Your task to perform on an android device: turn off priority inbox in the gmail app Image 0: 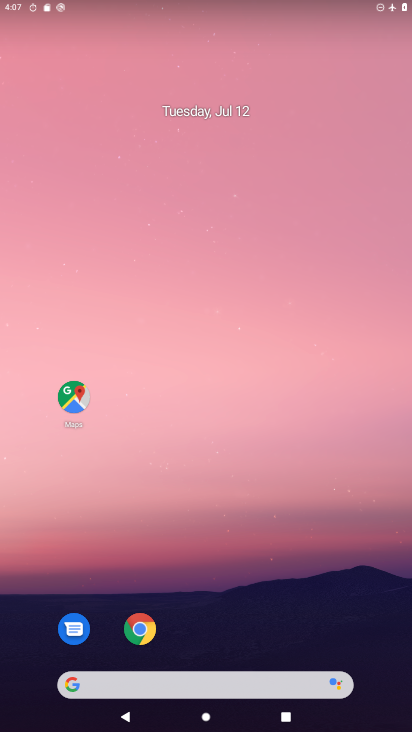
Step 0: drag from (282, 727) to (236, 65)
Your task to perform on an android device: turn off priority inbox in the gmail app Image 1: 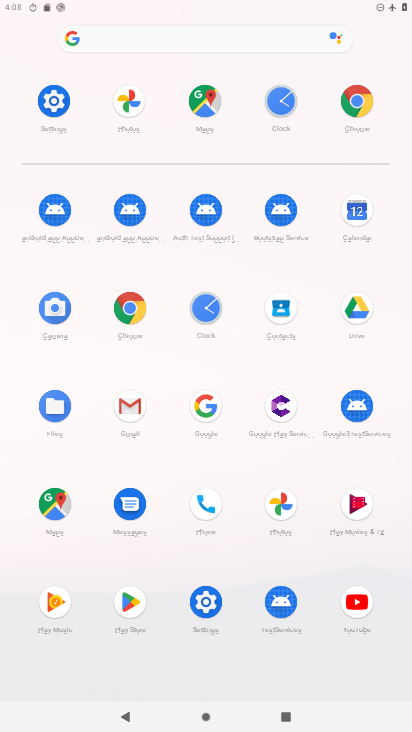
Step 1: click (127, 425)
Your task to perform on an android device: turn off priority inbox in the gmail app Image 2: 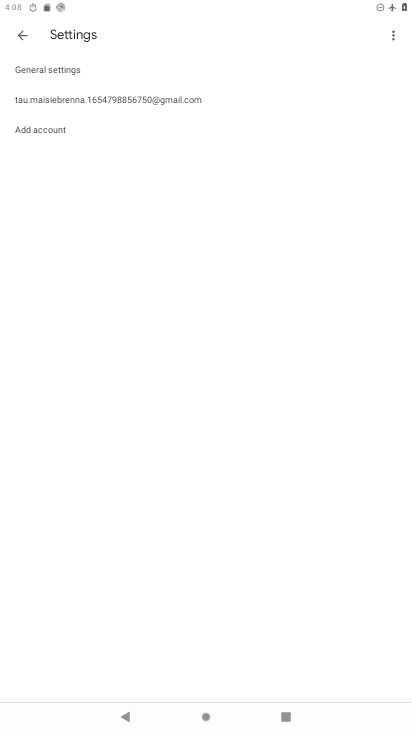
Step 2: click (25, 35)
Your task to perform on an android device: turn off priority inbox in the gmail app Image 3: 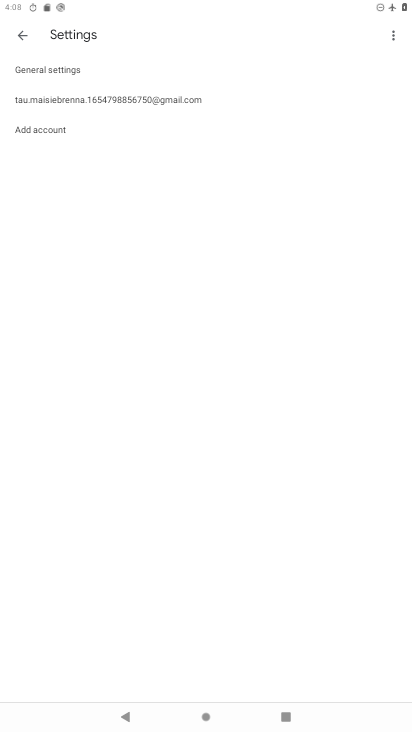
Step 3: click (25, 35)
Your task to perform on an android device: turn off priority inbox in the gmail app Image 4: 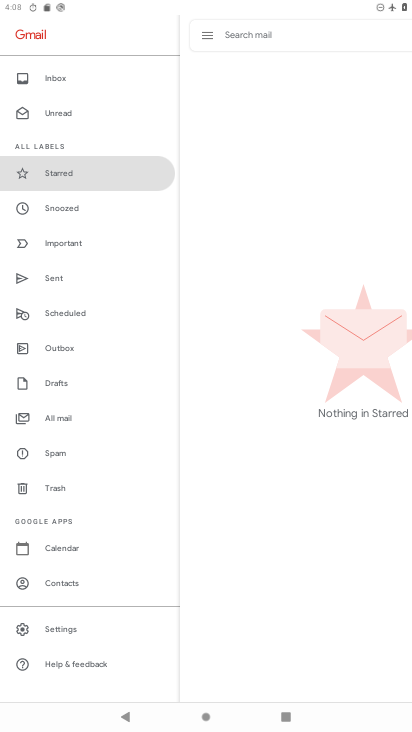
Step 4: click (37, 627)
Your task to perform on an android device: turn off priority inbox in the gmail app Image 5: 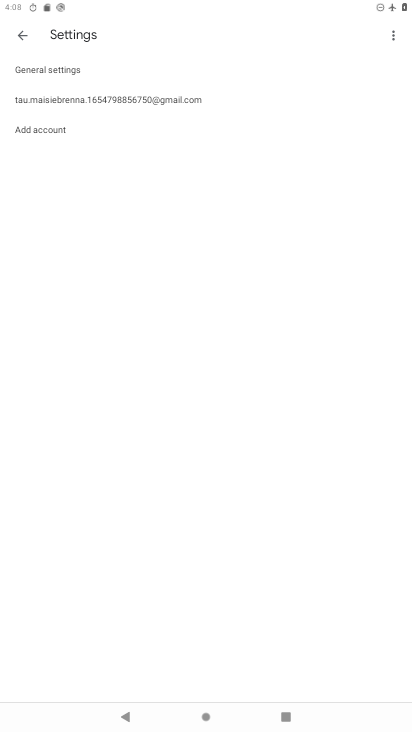
Step 5: click (148, 107)
Your task to perform on an android device: turn off priority inbox in the gmail app Image 6: 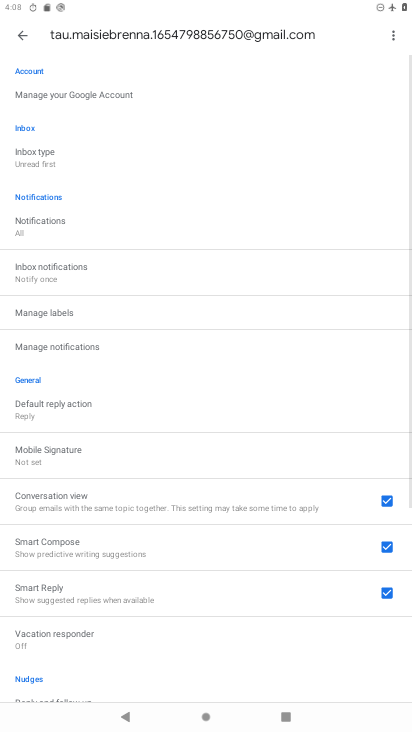
Step 6: click (65, 155)
Your task to perform on an android device: turn off priority inbox in the gmail app Image 7: 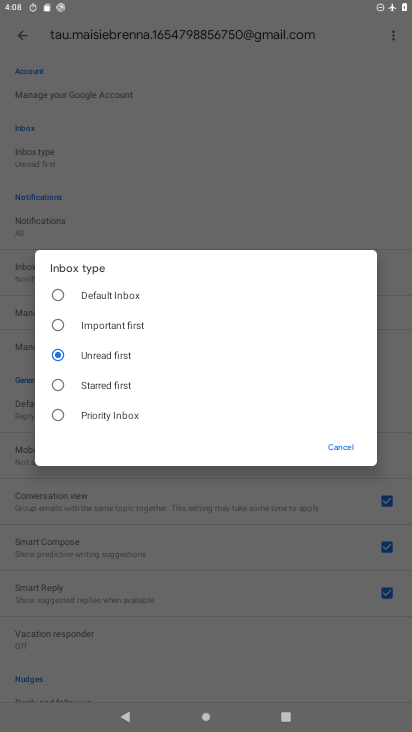
Step 7: click (96, 416)
Your task to perform on an android device: turn off priority inbox in the gmail app Image 8: 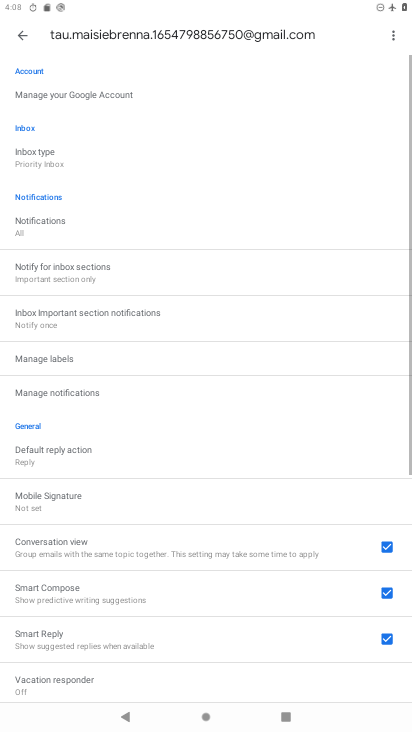
Step 8: task complete